Your task to perform on an android device: What's the weather today? Image 0: 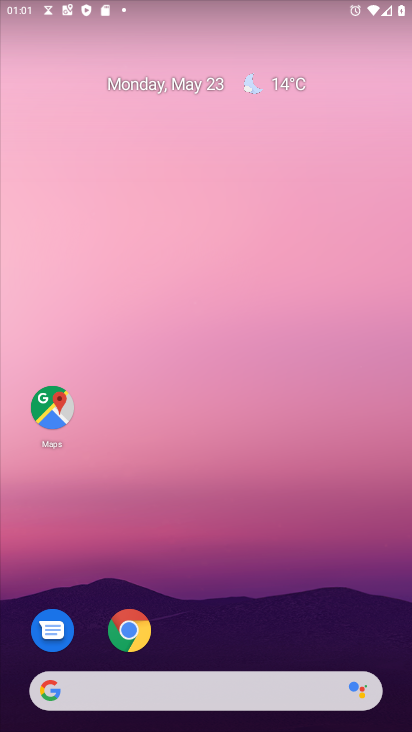
Step 0: drag from (276, 603) to (267, 670)
Your task to perform on an android device: What's the weather today? Image 1: 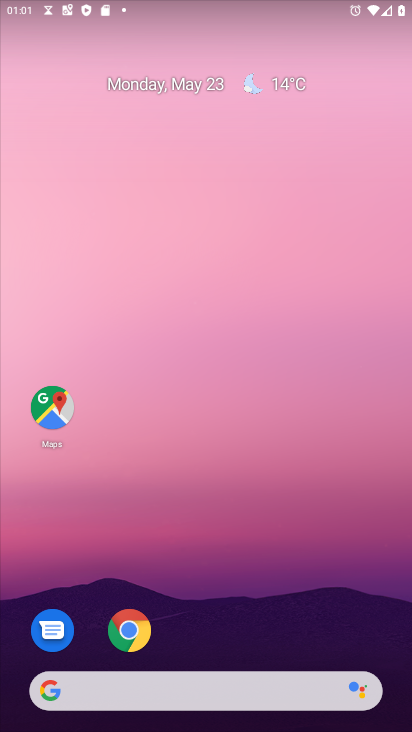
Step 1: click (297, 74)
Your task to perform on an android device: What's the weather today? Image 2: 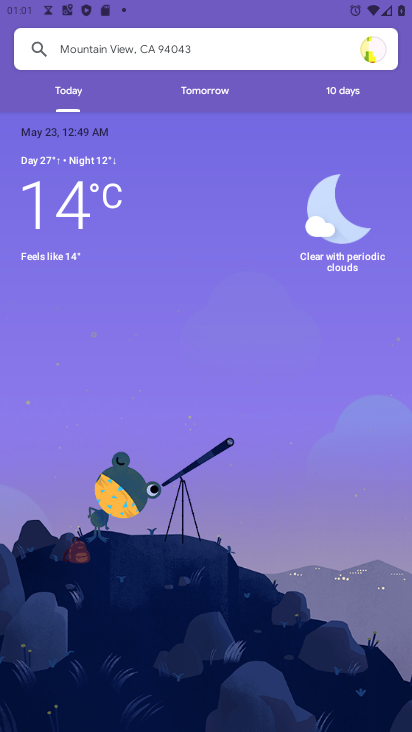
Step 2: task complete